Your task to perform on an android device: Open network settings Image 0: 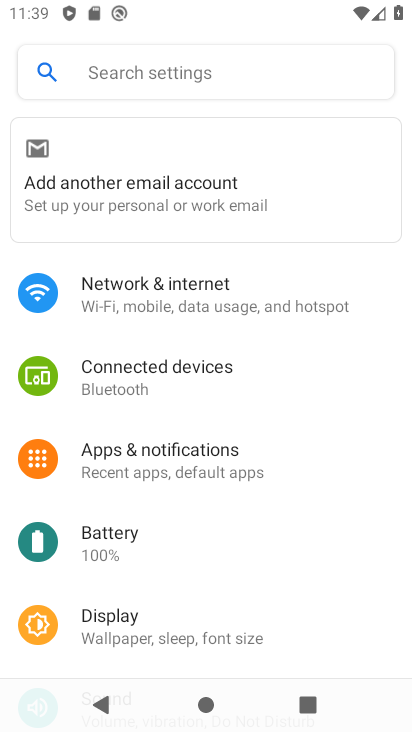
Step 0: click (173, 304)
Your task to perform on an android device: Open network settings Image 1: 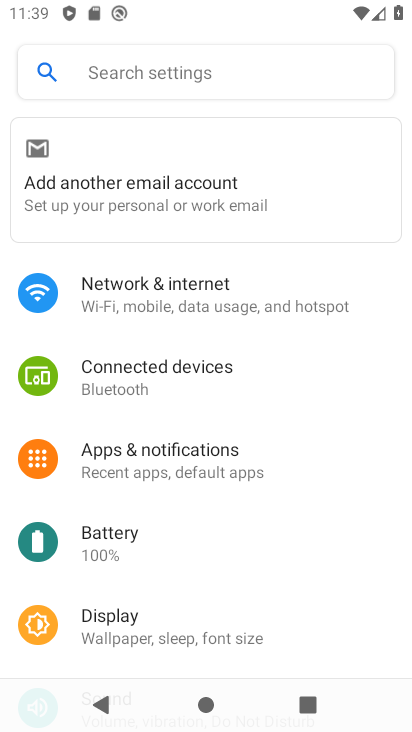
Step 1: task complete